Your task to perform on an android device: toggle wifi Image 0: 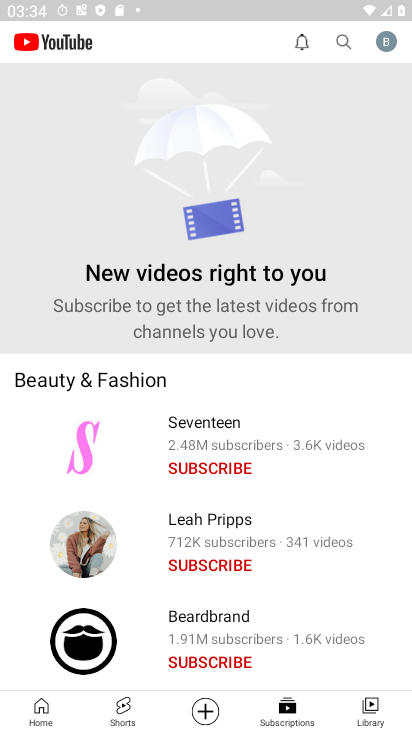
Step 0: press back button
Your task to perform on an android device: toggle wifi Image 1: 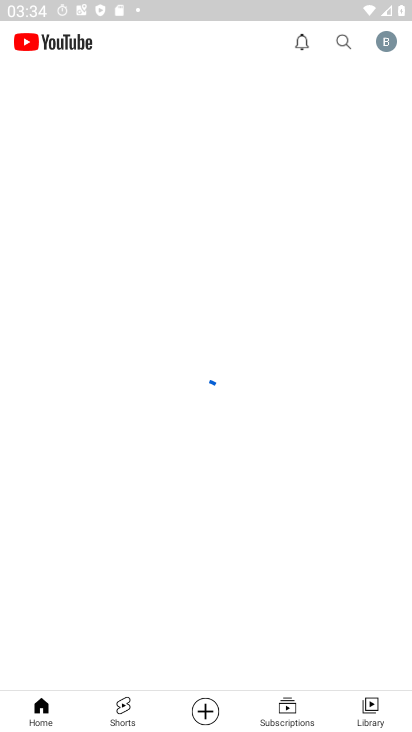
Step 1: press back button
Your task to perform on an android device: toggle wifi Image 2: 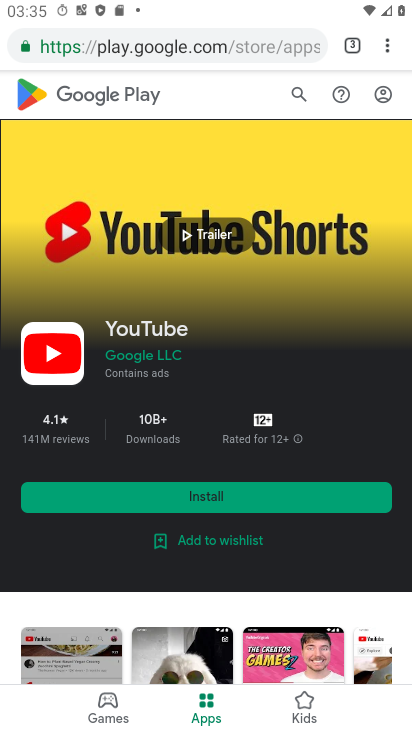
Step 2: drag from (215, 555) to (199, 375)
Your task to perform on an android device: toggle wifi Image 3: 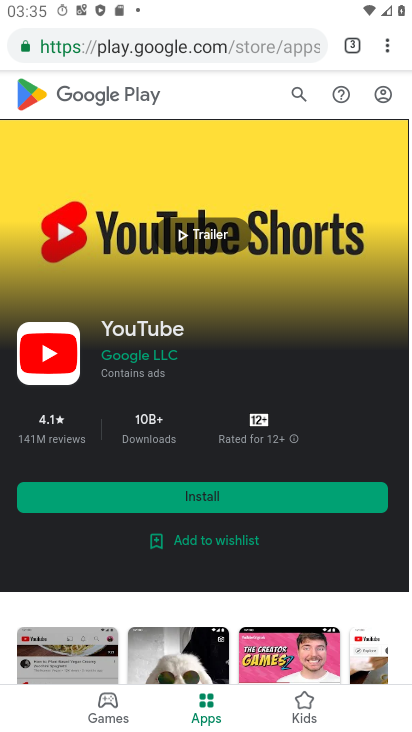
Step 3: press back button
Your task to perform on an android device: toggle wifi Image 4: 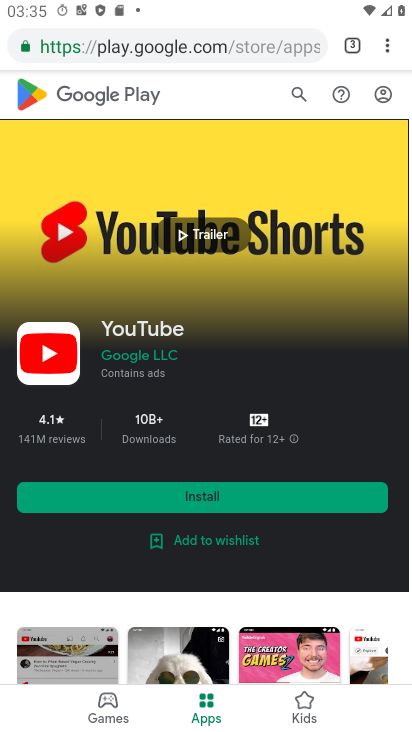
Step 4: press back button
Your task to perform on an android device: toggle wifi Image 5: 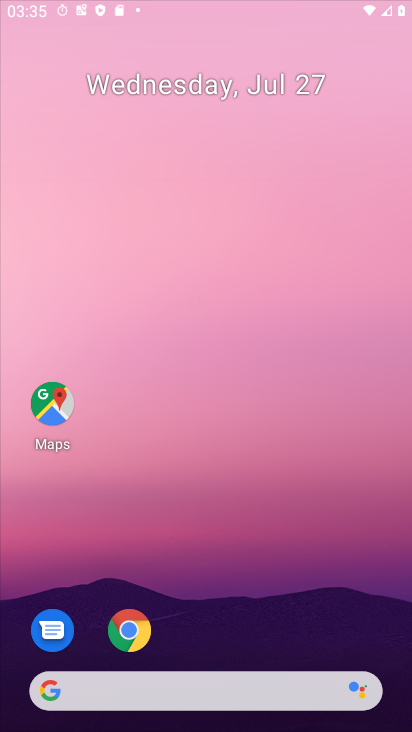
Step 5: press back button
Your task to perform on an android device: toggle wifi Image 6: 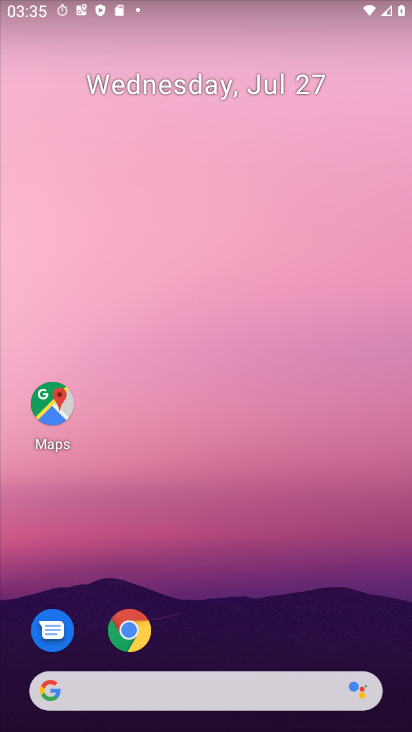
Step 6: drag from (225, 601) to (236, 153)
Your task to perform on an android device: toggle wifi Image 7: 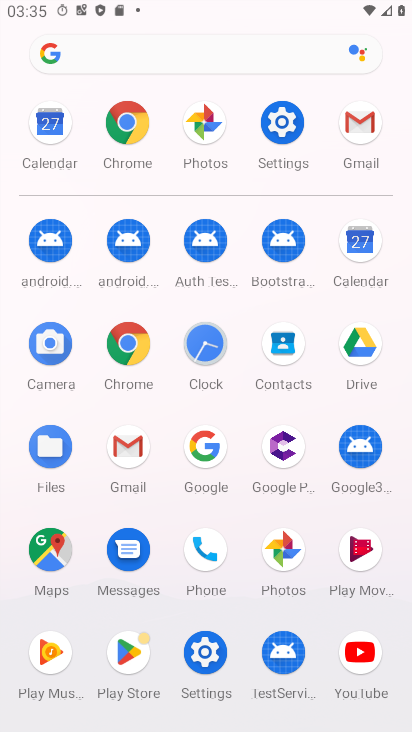
Step 7: drag from (246, 527) to (218, 242)
Your task to perform on an android device: toggle wifi Image 8: 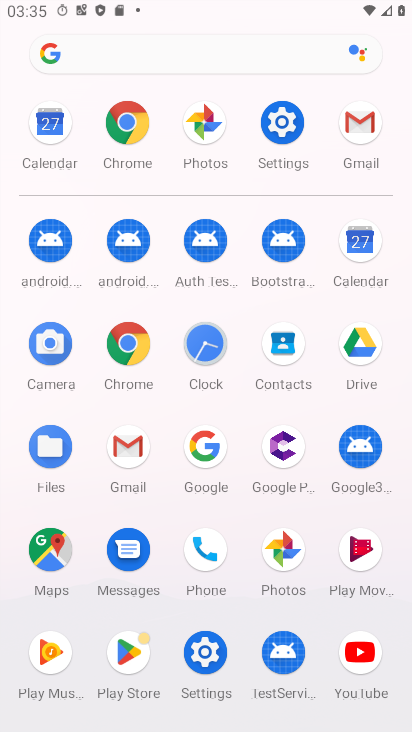
Step 8: click (273, 128)
Your task to perform on an android device: toggle wifi Image 9: 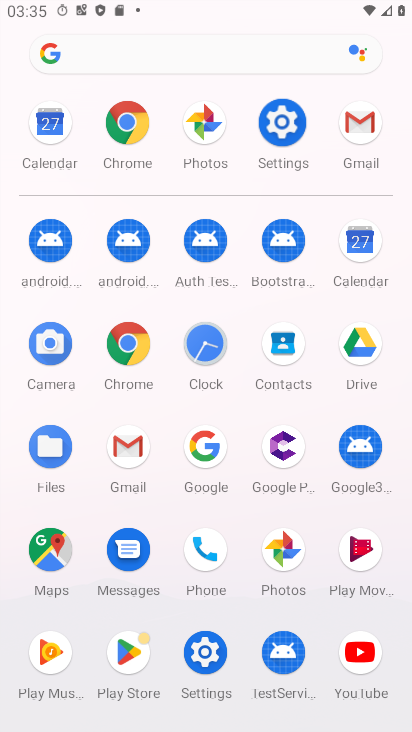
Step 9: click (274, 127)
Your task to perform on an android device: toggle wifi Image 10: 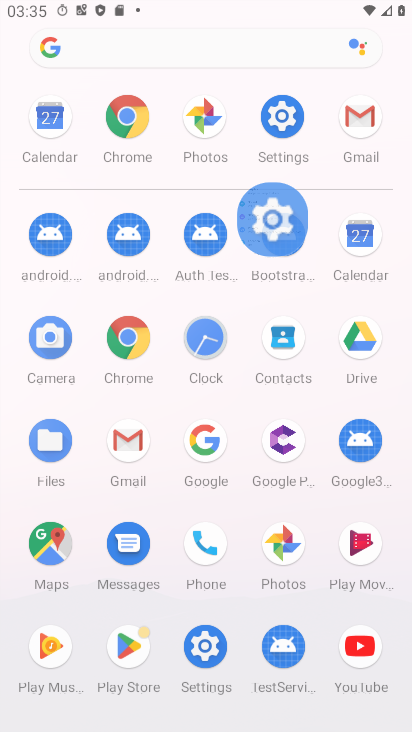
Step 10: click (275, 127)
Your task to perform on an android device: toggle wifi Image 11: 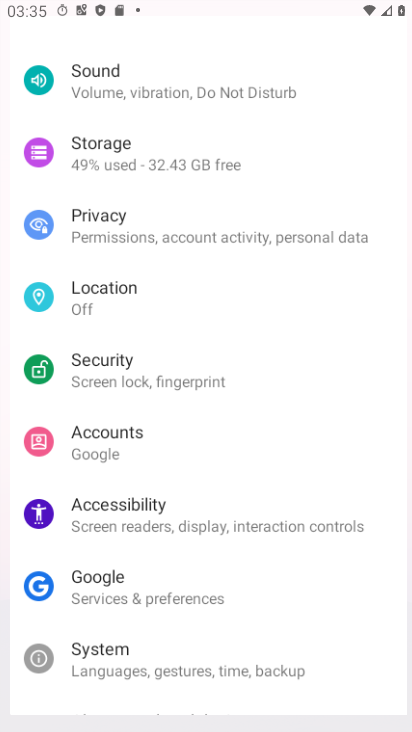
Step 11: click (275, 127)
Your task to perform on an android device: toggle wifi Image 12: 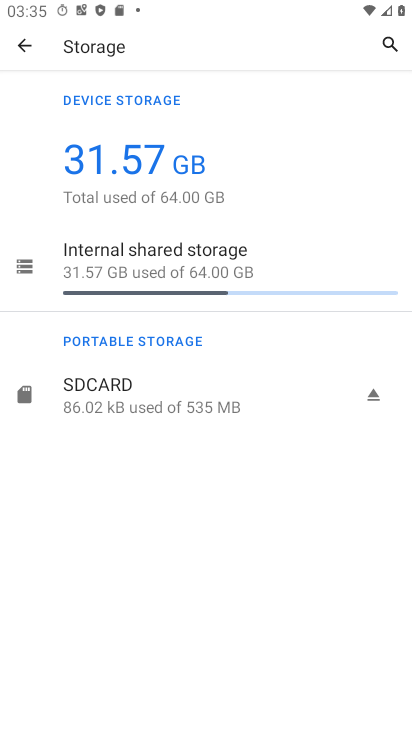
Step 12: click (23, 38)
Your task to perform on an android device: toggle wifi Image 13: 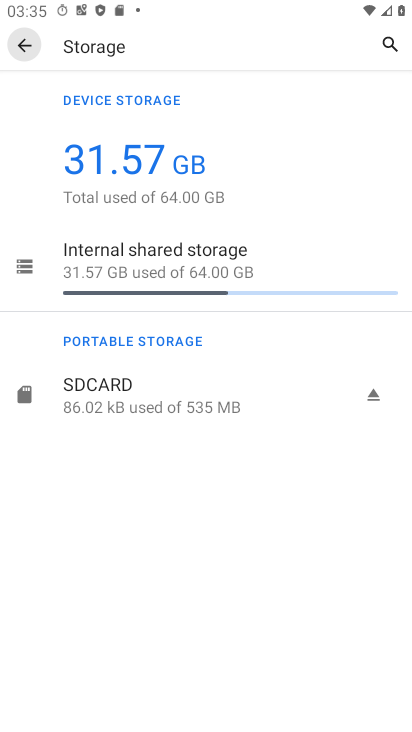
Step 13: click (25, 34)
Your task to perform on an android device: toggle wifi Image 14: 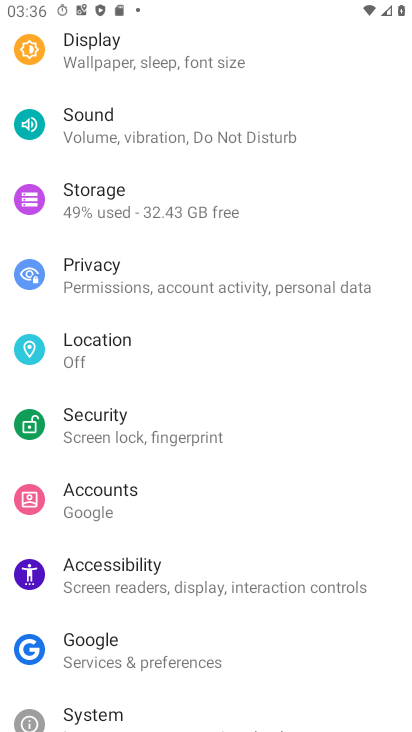
Step 14: drag from (116, 146) to (167, 277)
Your task to perform on an android device: toggle wifi Image 15: 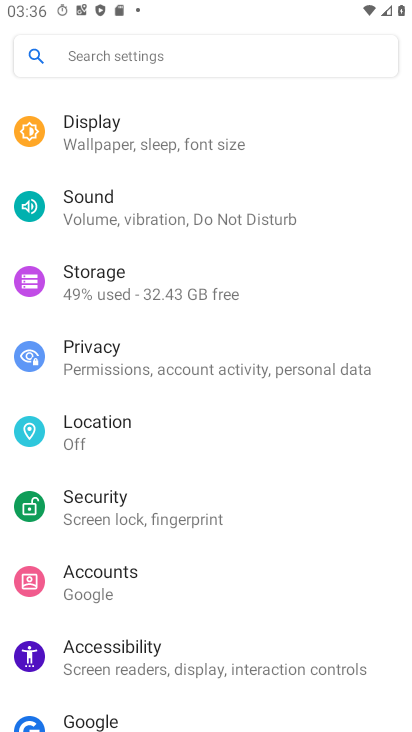
Step 15: drag from (149, 156) to (185, 384)
Your task to perform on an android device: toggle wifi Image 16: 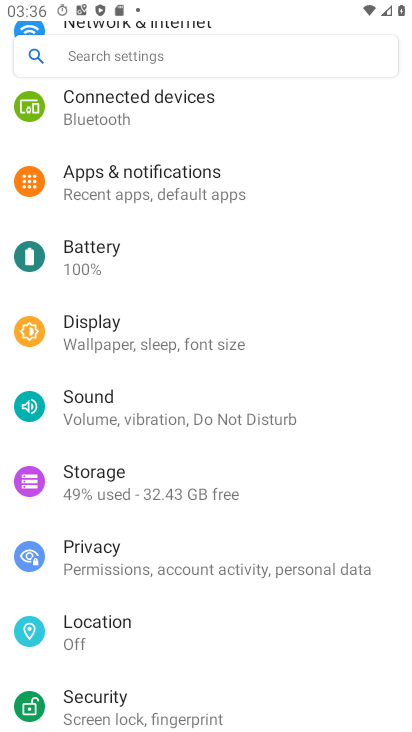
Step 16: drag from (85, 143) to (154, 454)
Your task to perform on an android device: toggle wifi Image 17: 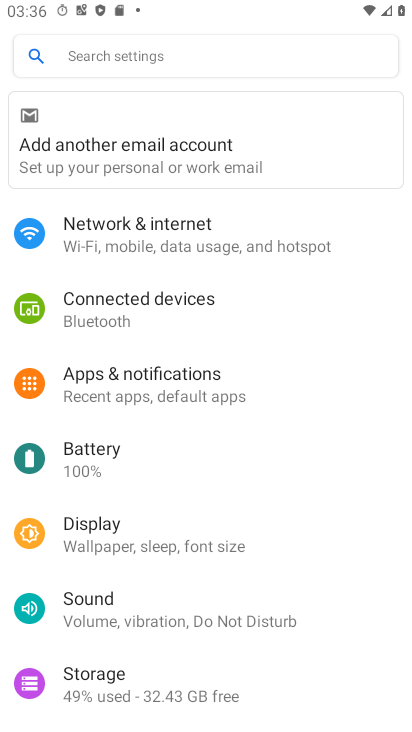
Step 17: drag from (99, 103) to (141, 374)
Your task to perform on an android device: toggle wifi Image 18: 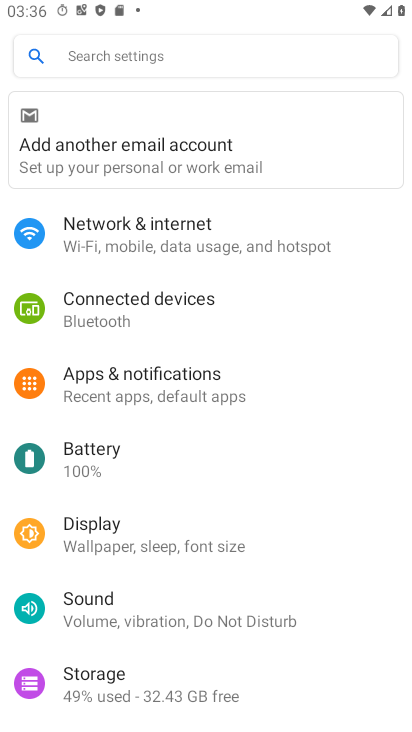
Step 18: click (137, 250)
Your task to perform on an android device: toggle wifi Image 19: 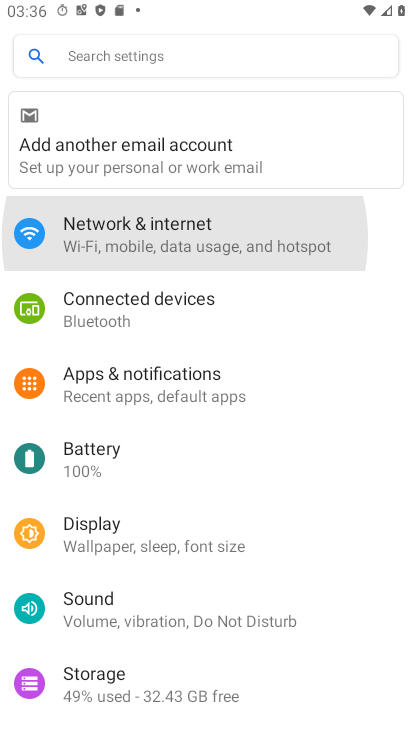
Step 19: click (140, 247)
Your task to perform on an android device: toggle wifi Image 20: 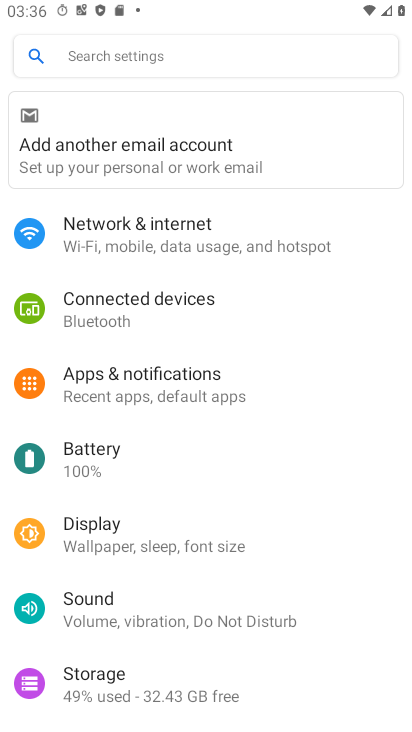
Step 20: click (141, 246)
Your task to perform on an android device: toggle wifi Image 21: 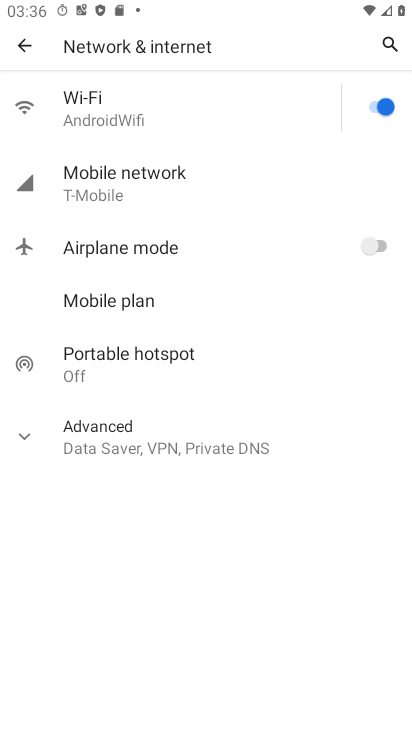
Step 21: click (387, 107)
Your task to perform on an android device: toggle wifi Image 22: 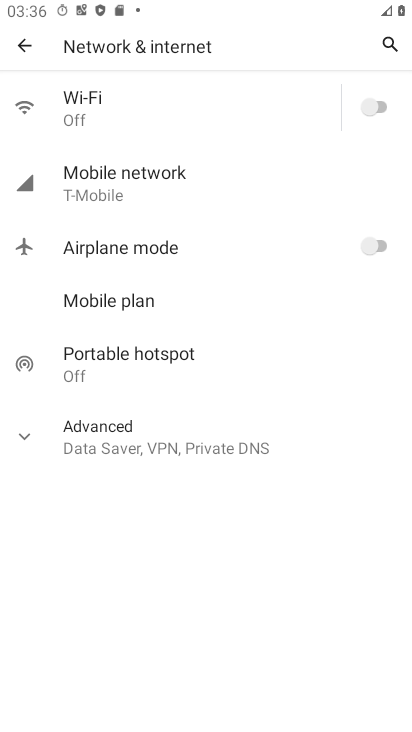
Step 22: task complete